Your task to perform on an android device: turn on improve location accuracy Image 0: 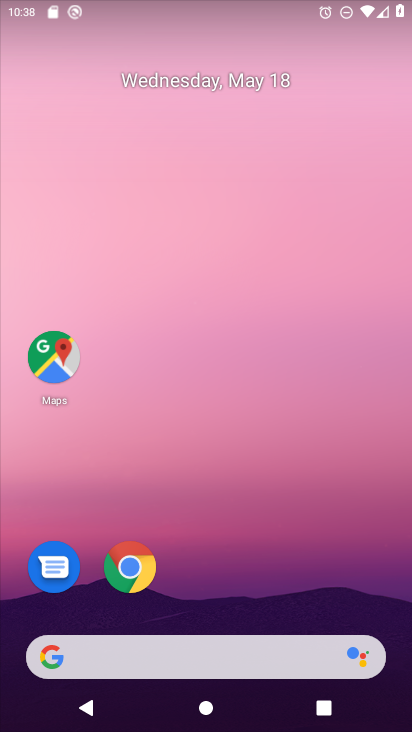
Step 0: drag from (235, 678) to (357, 155)
Your task to perform on an android device: turn on improve location accuracy Image 1: 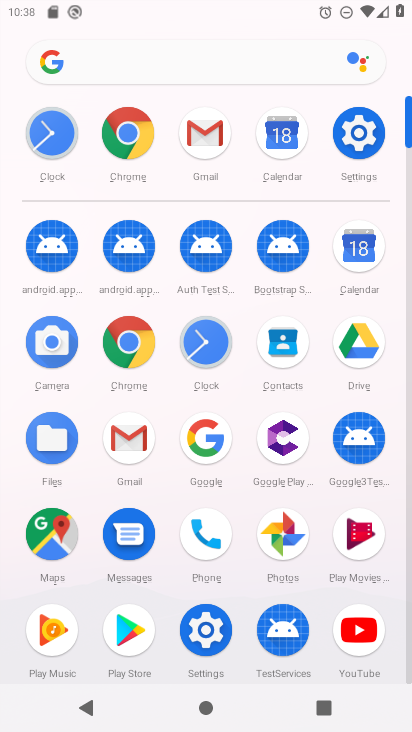
Step 1: click (199, 631)
Your task to perform on an android device: turn on improve location accuracy Image 2: 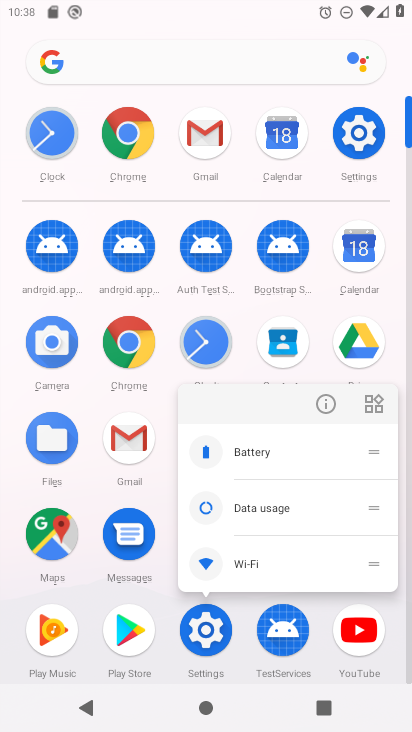
Step 2: click (202, 632)
Your task to perform on an android device: turn on improve location accuracy Image 3: 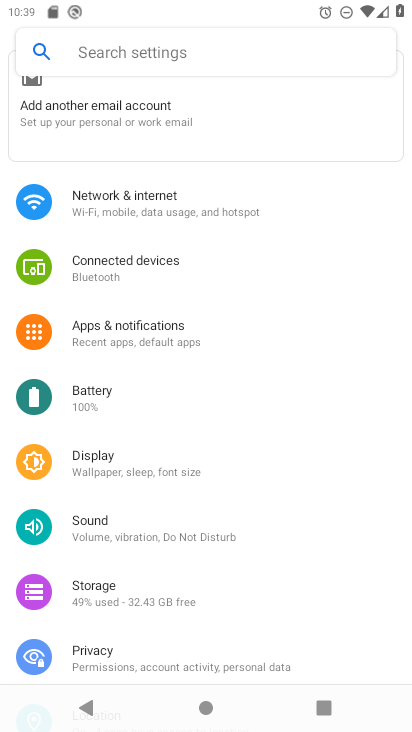
Step 3: click (136, 75)
Your task to perform on an android device: turn on improve location accuracy Image 4: 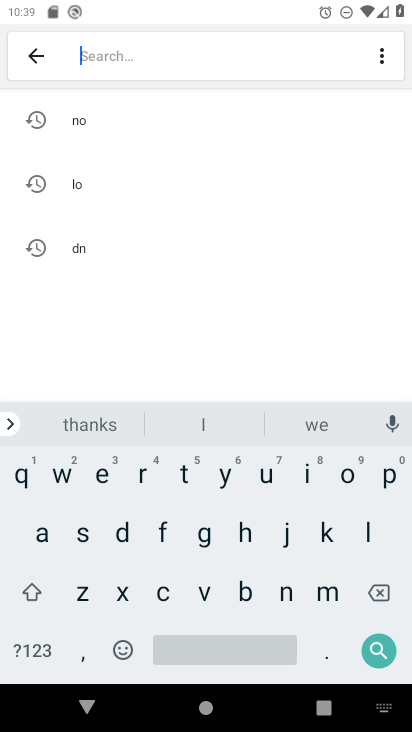
Step 4: click (89, 188)
Your task to perform on an android device: turn on improve location accuracy Image 5: 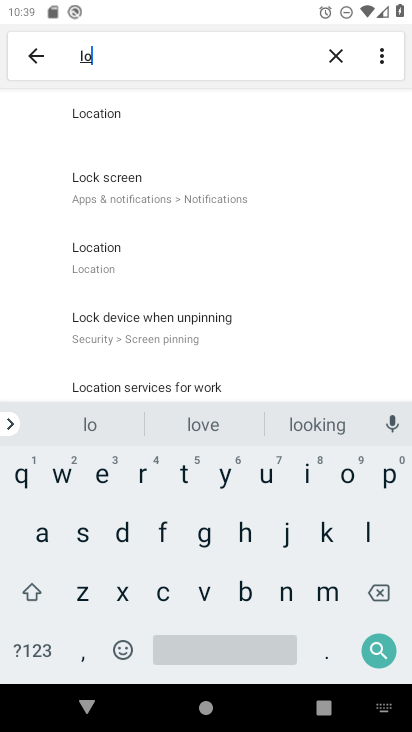
Step 5: click (115, 258)
Your task to perform on an android device: turn on improve location accuracy Image 6: 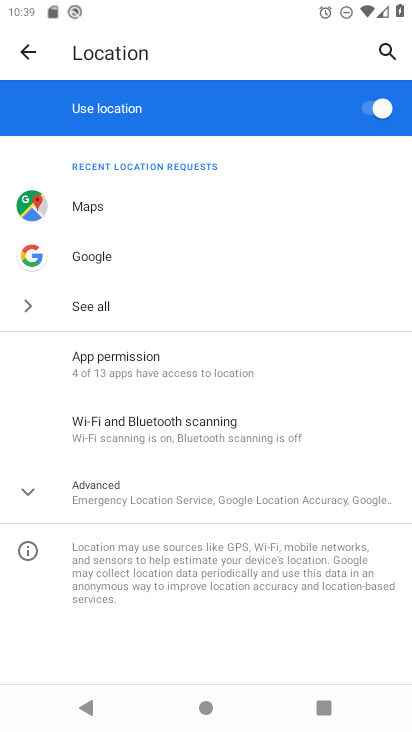
Step 6: click (29, 490)
Your task to perform on an android device: turn on improve location accuracy Image 7: 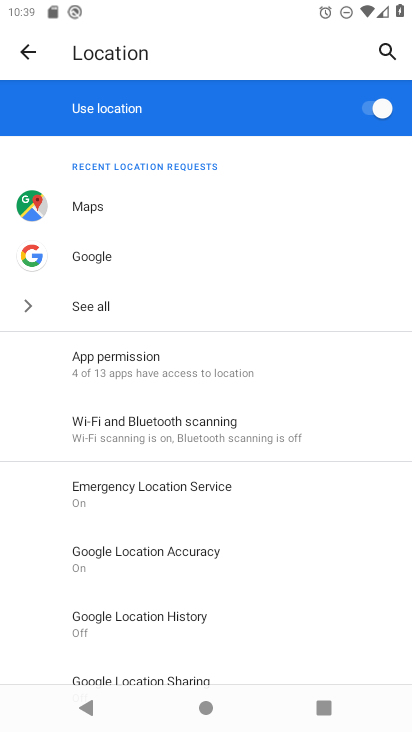
Step 7: click (181, 555)
Your task to perform on an android device: turn on improve location accuracy Image 8: 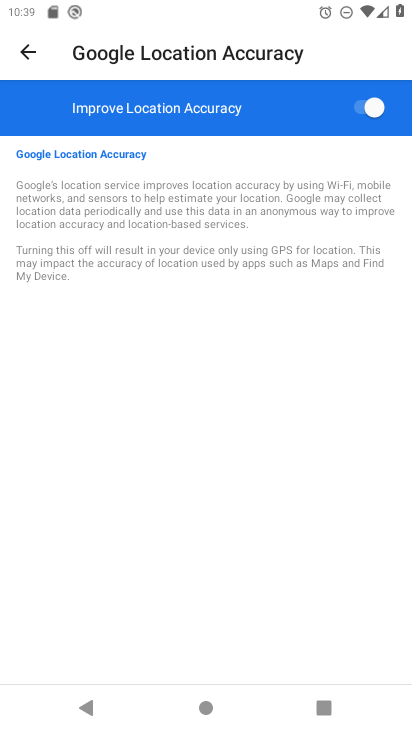
Step 8: click (349, 101)
Your task to perform on an android device: turn on improve location accuracy Image 9: 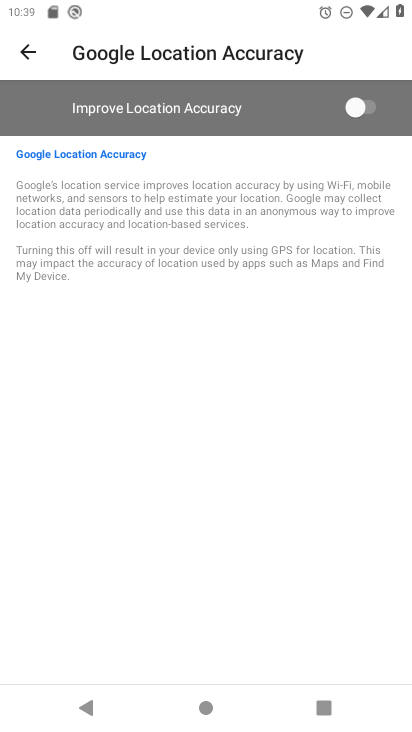
Step 9: click (349, 101)
Your task to perform on an android device: turn on improve location accuracy Image 10: 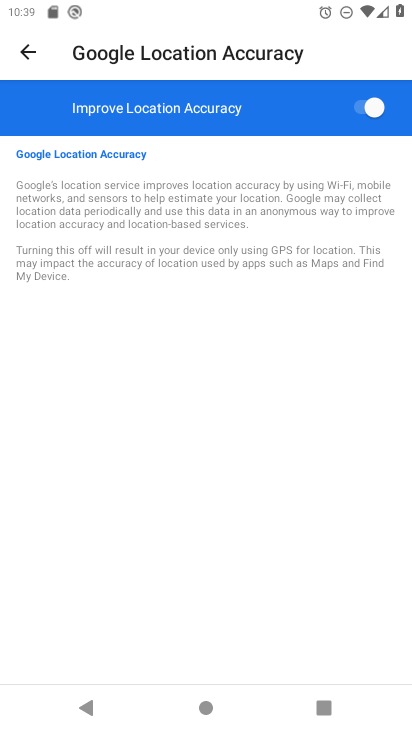
Step 10: task complete